Your task to perform on an android device: Open maps Image 0: 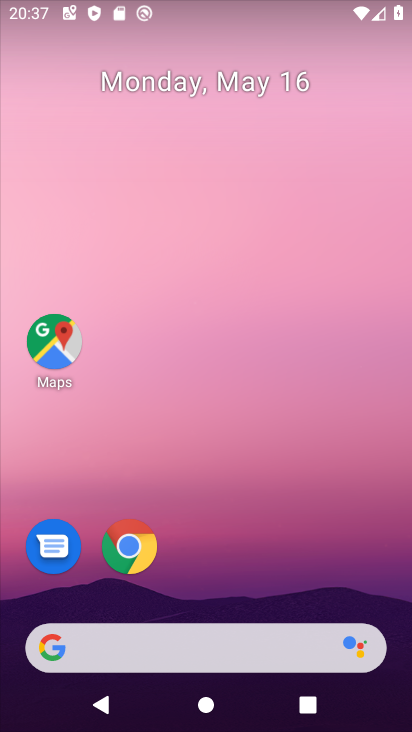
Step 0: click (57, 358)
Your task to perform on an android device: Open maps Image 1: 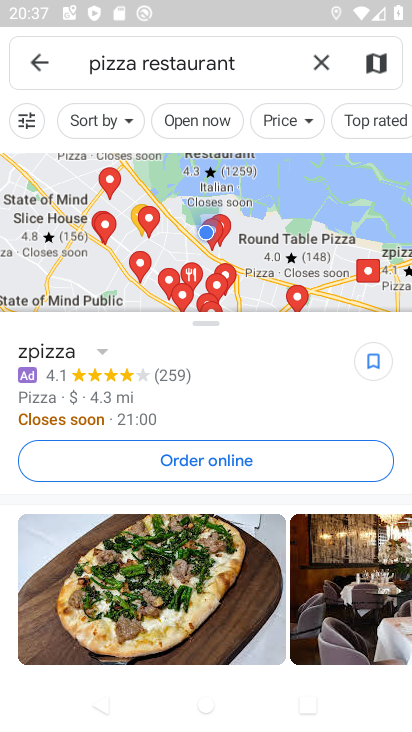
Step 1: task complete